Your task to perform on an android device: Open the phone app and click the voicemail tab. Image 0: 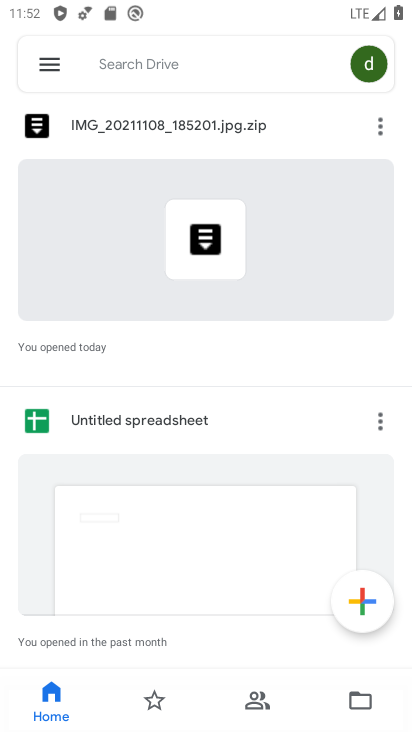
Step 0: press home button
Your task to perform on an android device: Open the phone app and click the voicemail tab. Image 1: 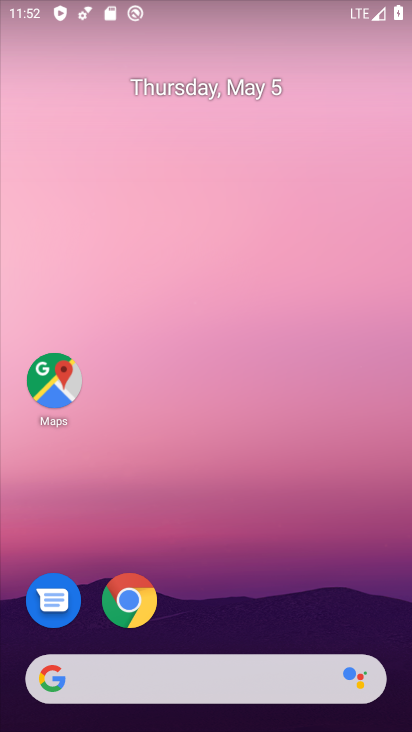
Step 1: drag from (283, 625) to (327, 38)
Your task to perform on an android device: Open the phone app and click the voicemail tab. Image 2: 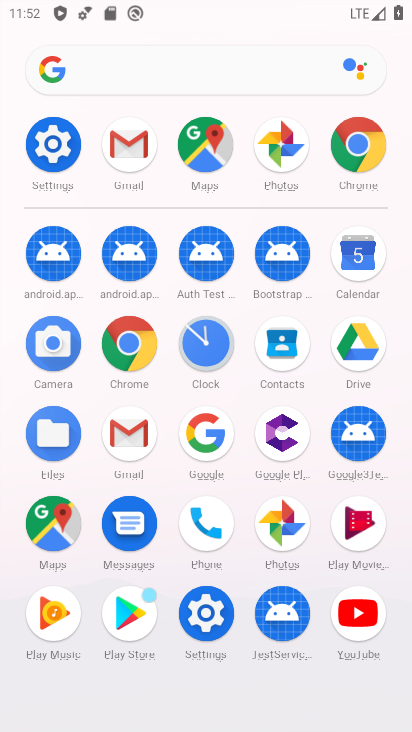
Step 2: click (194, 537)
Your task to perform on an android device: Open the phone app and click the voicemail tab. Image 3: 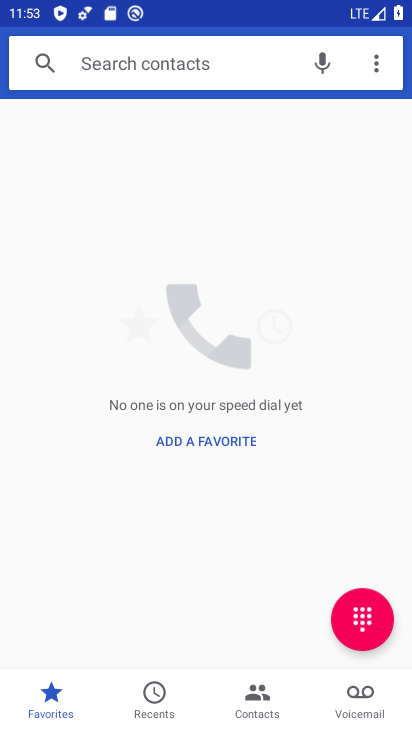
Step 3: click (361, 693)
Your task to perform on an android device: Open the phone app and click the voicemail tab. Image 4: 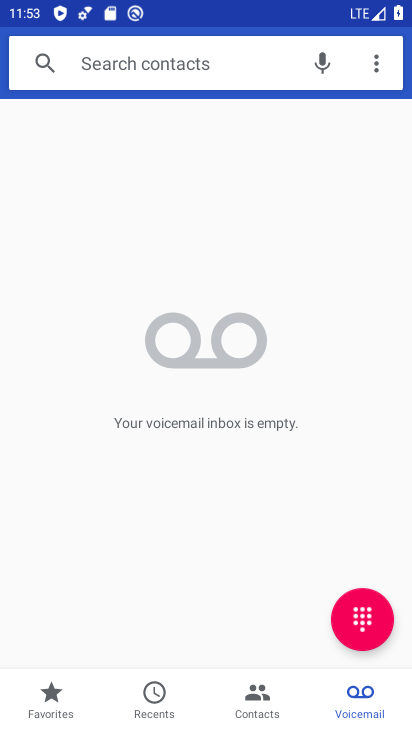
Step 4: task complete